Your task to perform on an android device: Open Google Chrome Image 0: 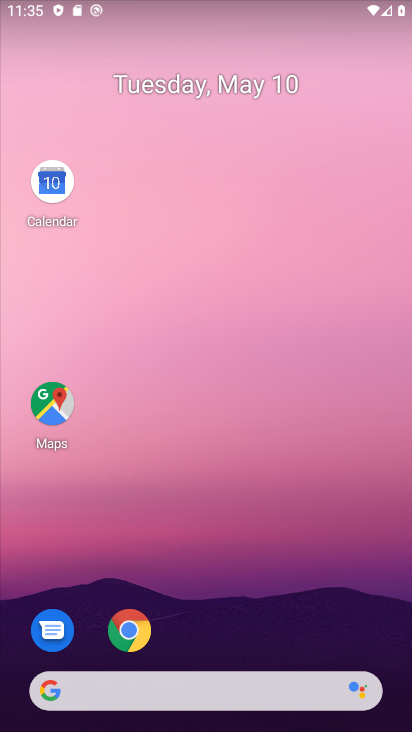
Step 0: click (137, 624)
Your task to perform on an android device: Open Google Chrome Image 1: 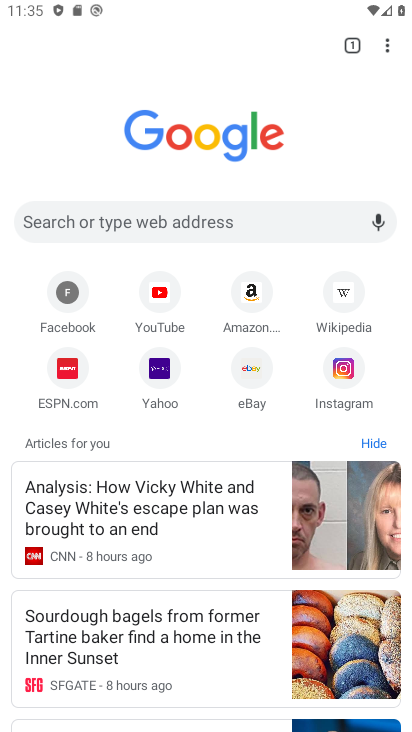
Step 1: task complete